Your task to perform on an android device: Go to privacy settings Image 0: 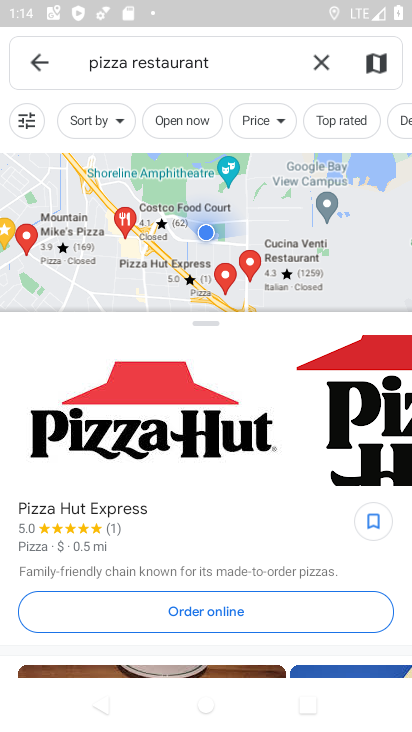
Step 0: press home button
Your task to perform on an android device: Go to privacy settings Image 1: 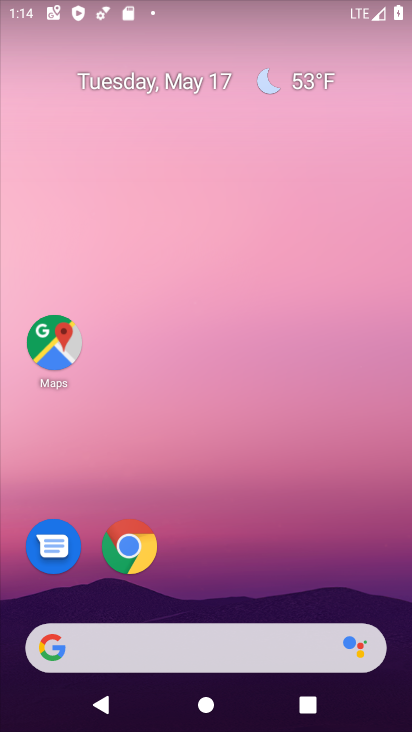
Step 1: drag from (228, 580) to (193, 98)
Your task to perform on an android device: Go to privacy settings Image 2: 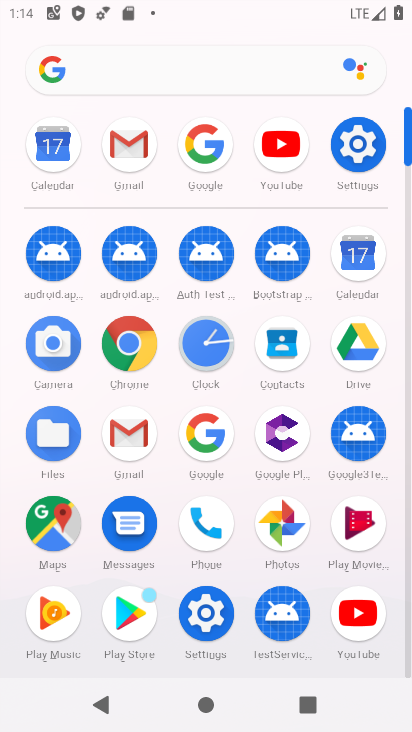
Step 2: click (334, 147)
Your task to perform on an android device: Go to privacy settings Image 3: 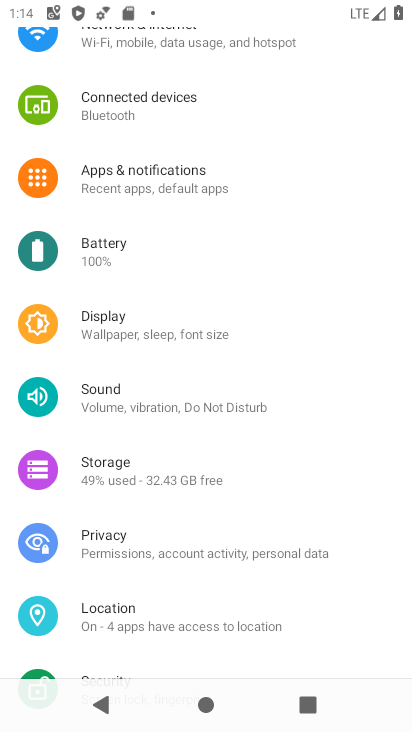
Step 3: click (139, 554)
Your task to perform on an android device: Go to privacy settings Image 4: 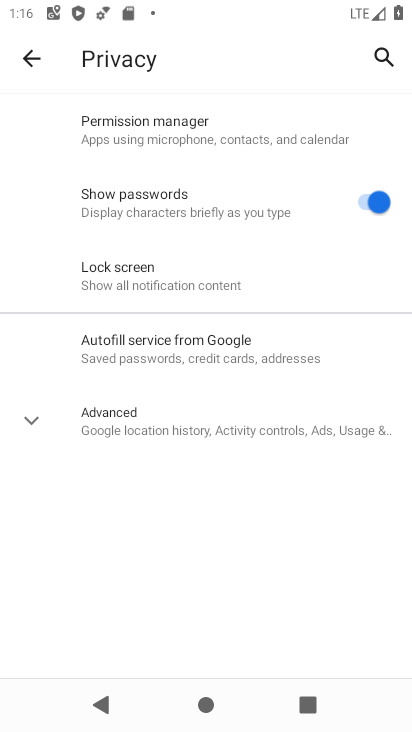
Step 4: task complete